Your task to perform on an android device: Open the phone app and click the voicemail tab. Image 0: 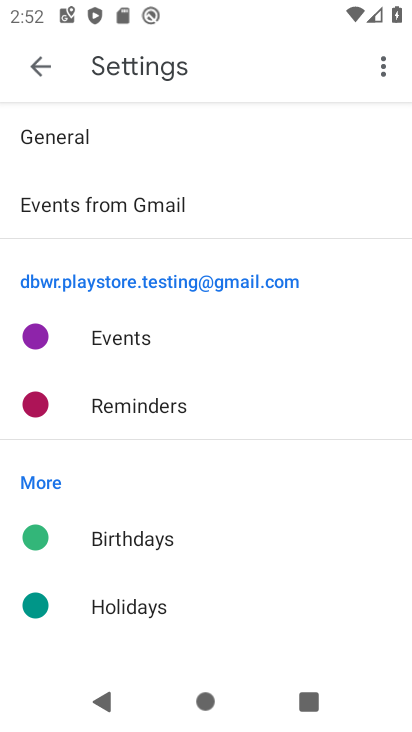
Step 0: press home button
Your task to perform on an android device: Open the phone app and click the voicemail tab. Image 1: 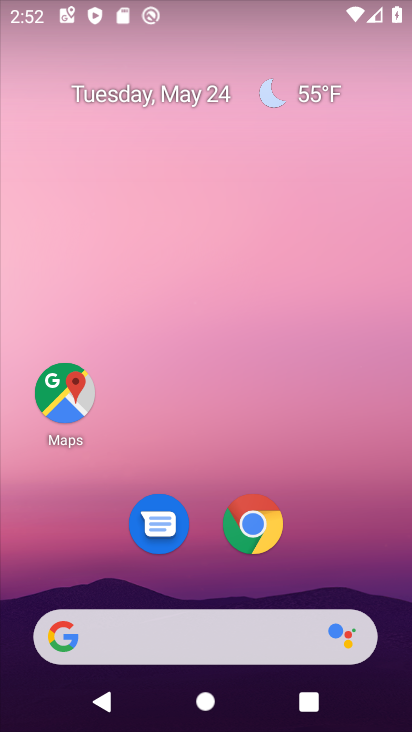
Step 1: drag from (222, 482) to (208, 38)
Your task to perform on an android device: Open the phone app and click the voicemail tab. Image 2: 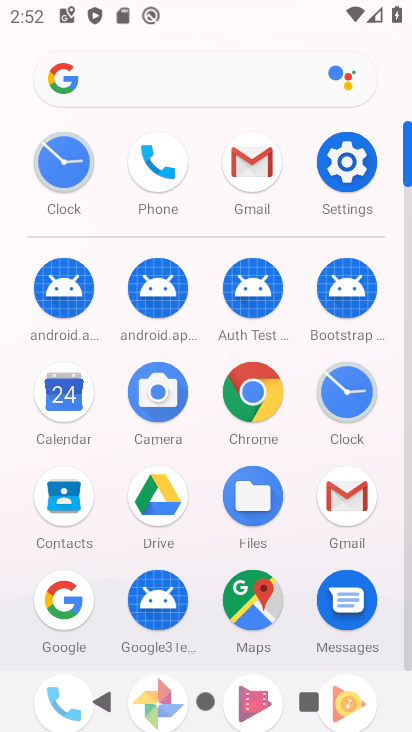
Step 2: click (168, 162)
Your task to perform on an android device: Open the phone app and click the voicemail tab. Image 3: 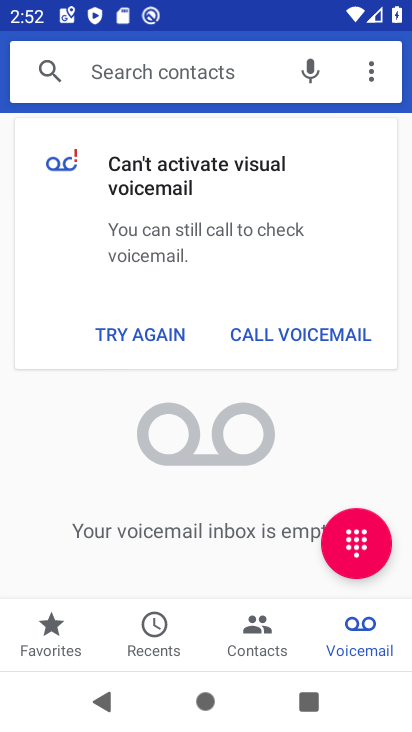
Step 3: click (344, 633)
Your task to perform on an android device: Open the phone app and click the voicemail tab. Image 4: 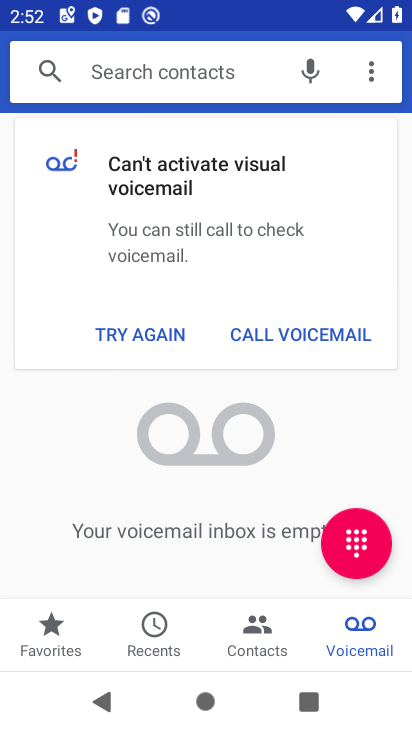
Step 4: click (161, 331)
Your task to perform on an android device: Open the phone app and click the voicemail tab. Image 5: 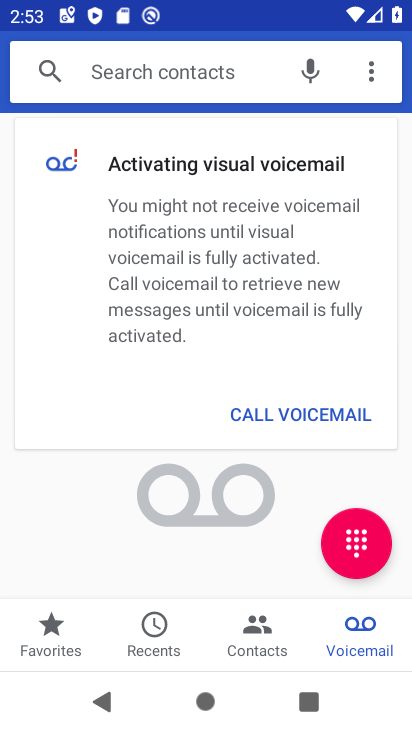
Step 5: click (353, 633)
Your task to perform on an android device: Open the phone app and click the voicemail tab. Image 6: 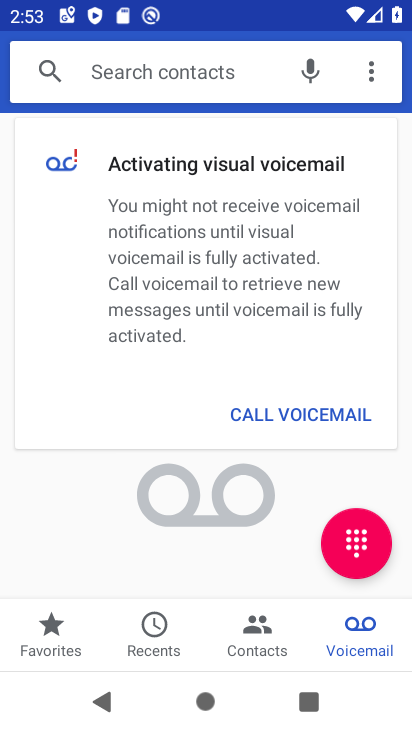
Step 6: task complete